Your task to perform on an android device: Search for Italian restaurants on Maps Image 0: 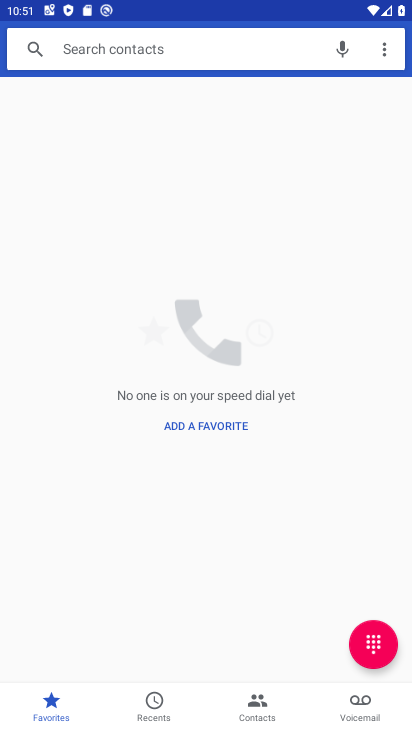
Step 0: press home button
Your task to perform on an android device: Search for Italian restaurants on Maps Image 1: 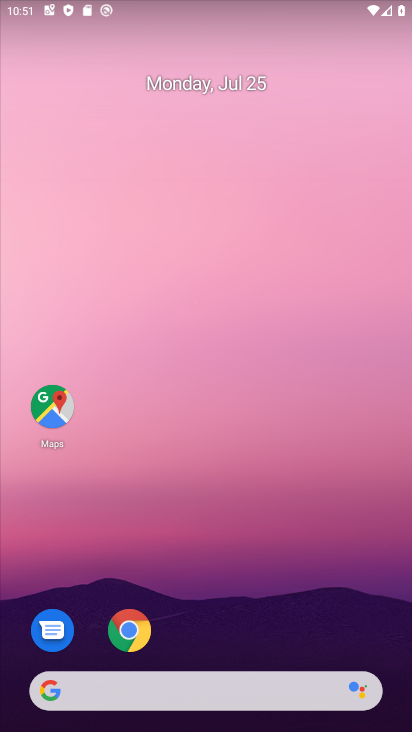
Step 1: drag from (353, 589) to (373, 121)
Your task to perform on an android device: Search for Italian restaurants on Maps Image 2: 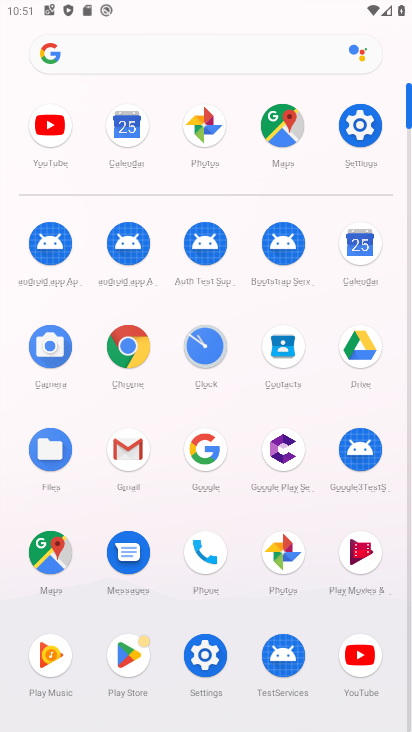
Step 2: click (55, 547)
Your task to perform on an android device: Search for Italian restaurants on Maps Image 3: 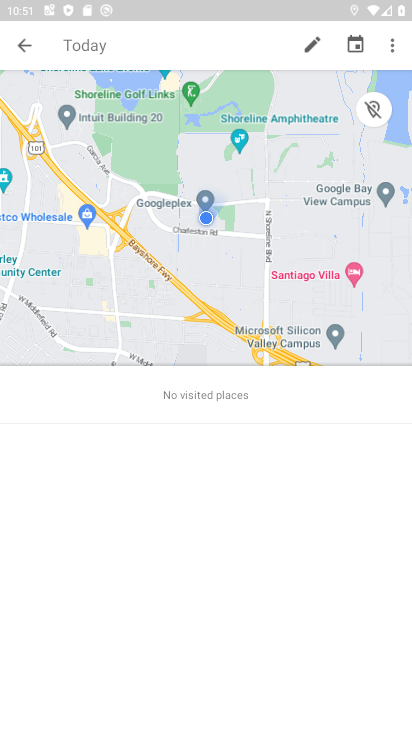
Step 3: press back button
Your task to perform on an android device: Search for Italian restaurants on Maps Image 4: 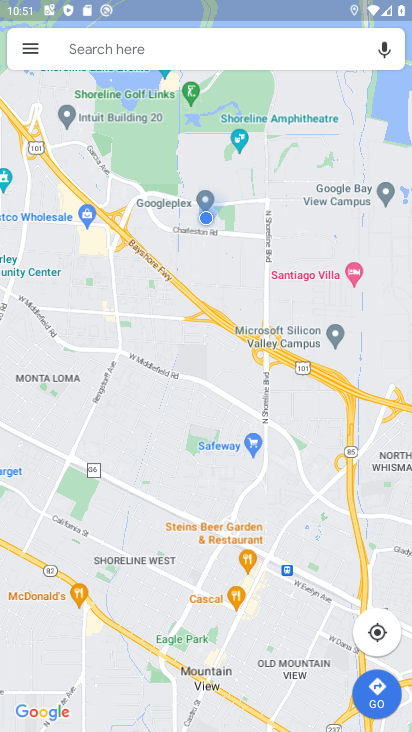
Step 4: click (269, 53)
Your task to perform on an android device: Search for Italian restaurants on Maps Image 5: 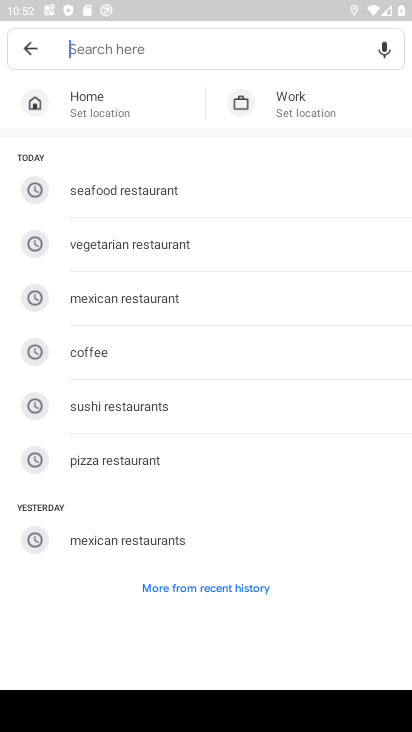
Step 5: type "italian restaurants"
Your task to perform on an android device: Search for Italian restaurants on Maps Image 6: 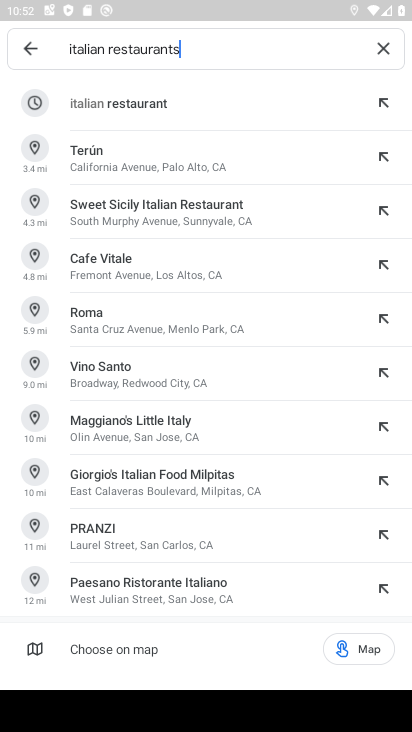
Step 6: click (324, 100)
Your task to perform on an android device: Search for Italian restaurants on Maps Image 7: 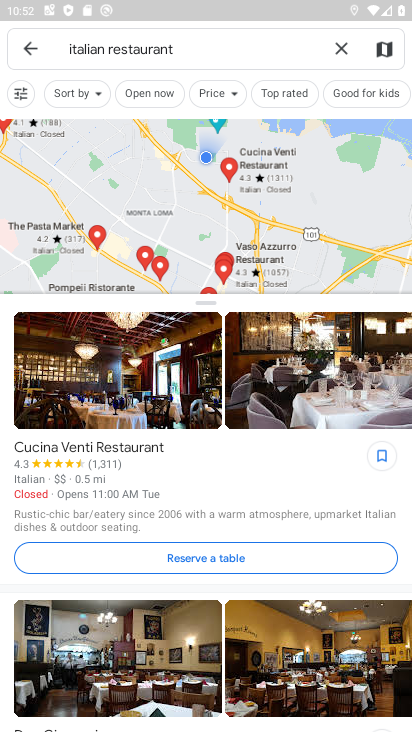
Step 7: task complete